Your task to perform on an android device: turn on javascript in the chrome app Image 0: 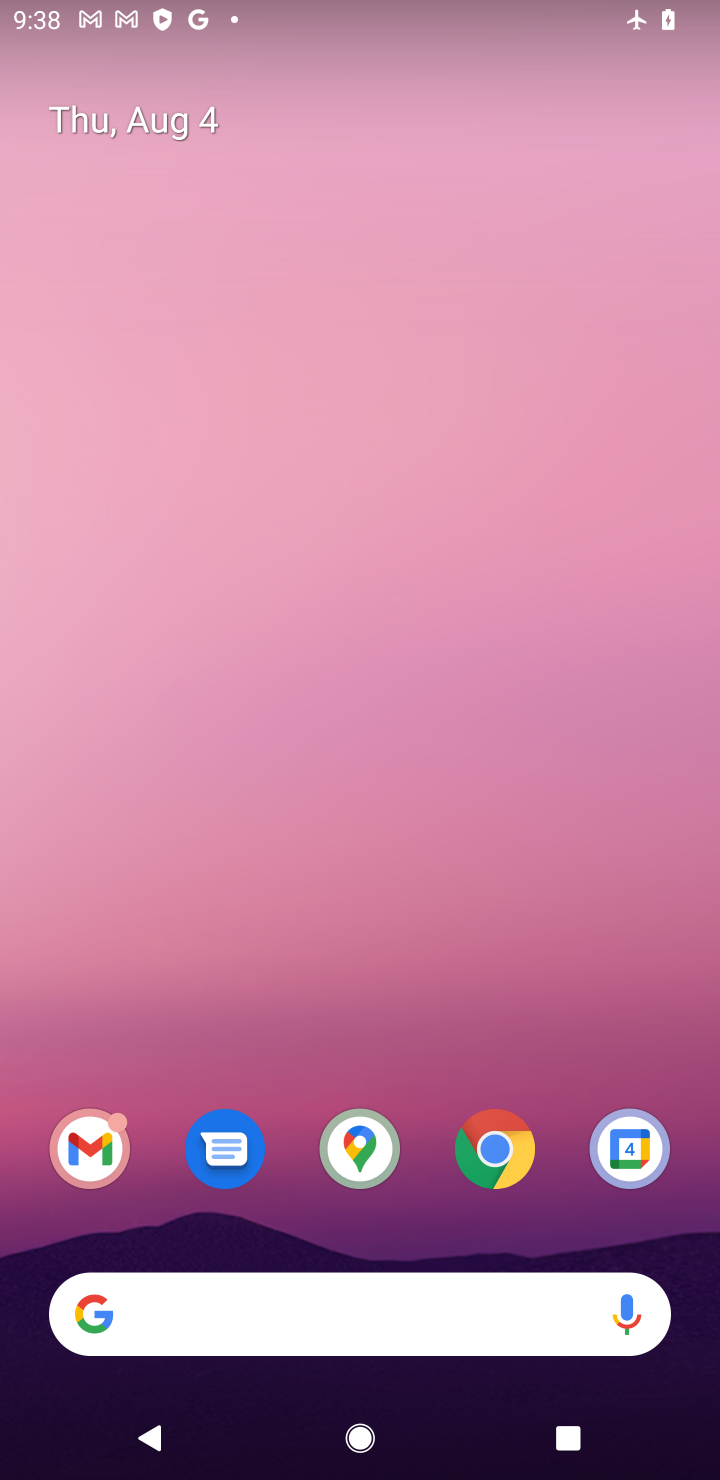
Step 0: click (493, 1146)
Your task to perform on an android device: turn on javascript in the chrome app Image 1: 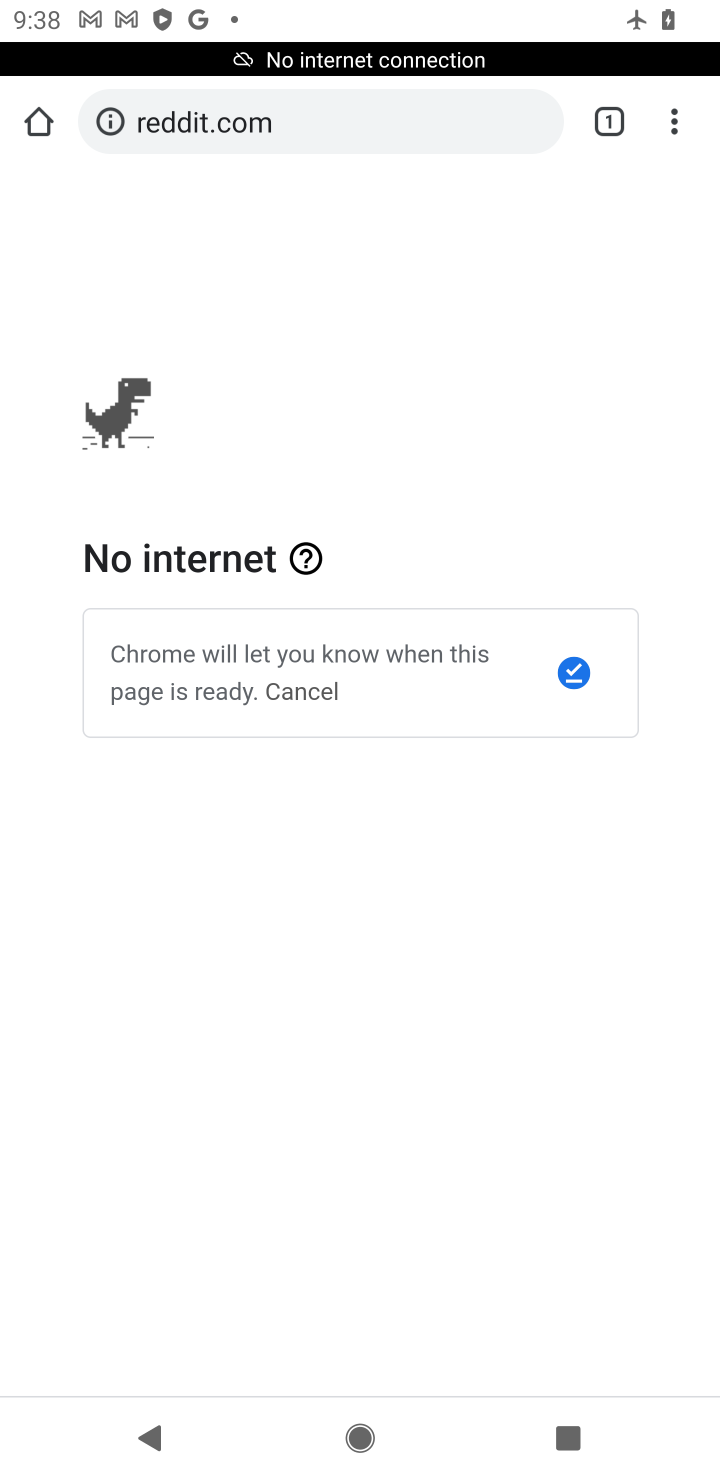
Step 1: click (667, 135)
Your task to perform on an android device: turn on javascript in the chrome app Image 2: 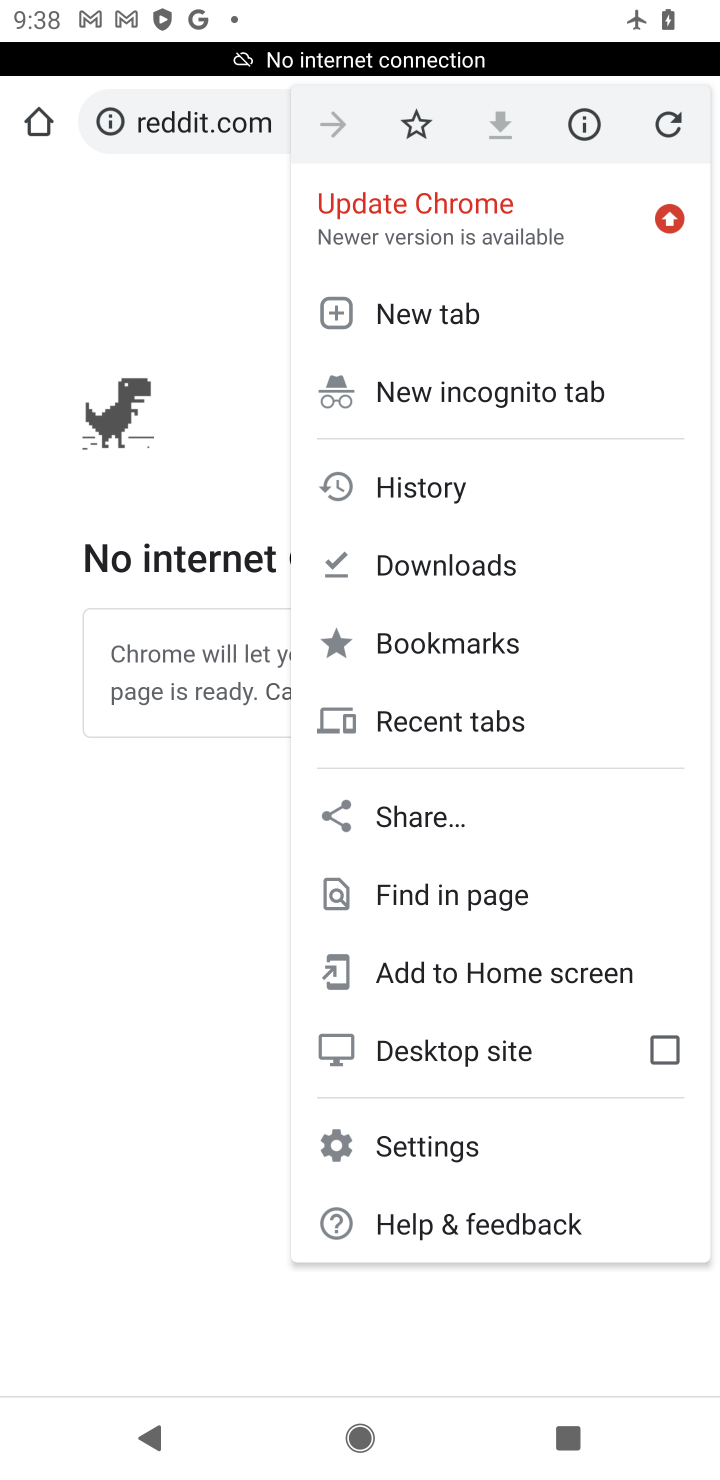
Step 2: click (430, 1136)
Your task to perform on an android device: turn on javascript in the chrome app Image 3: 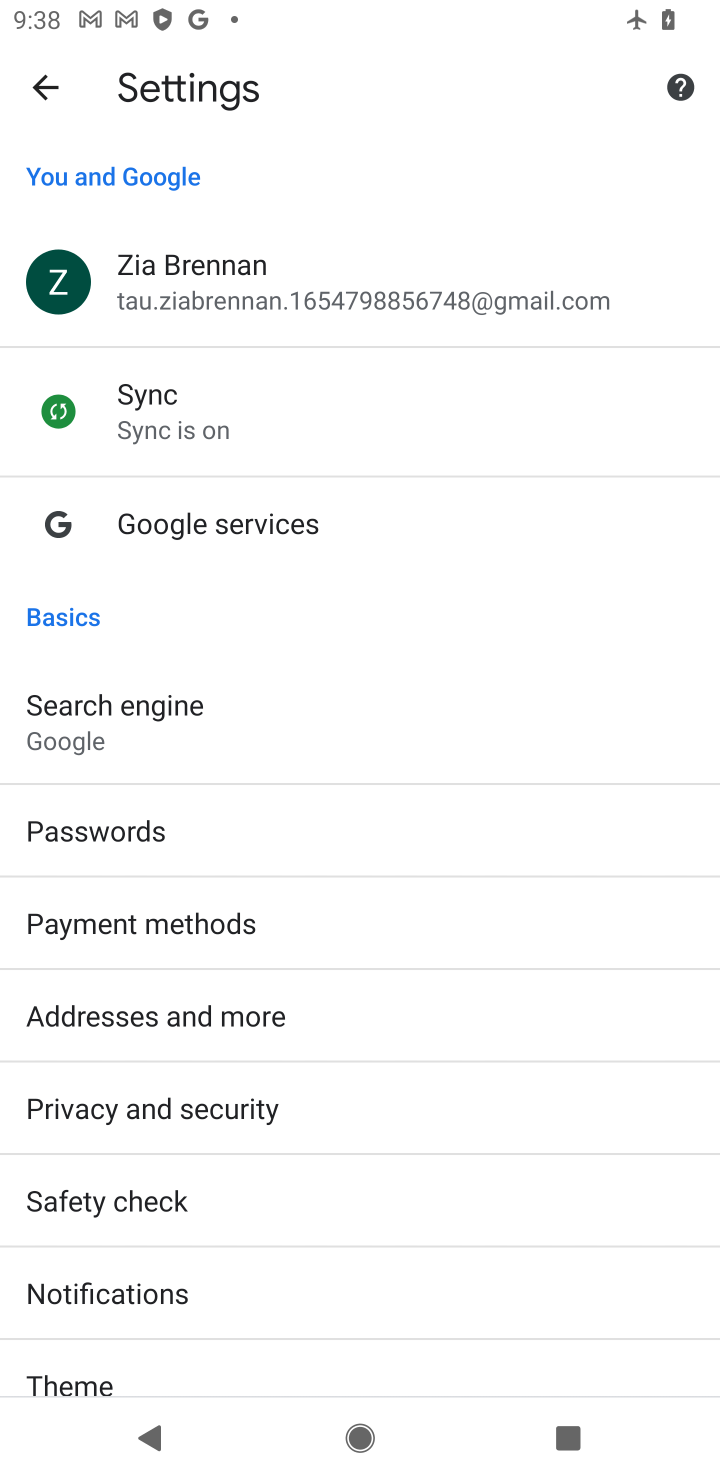
Step 3: drag from (428, 1231) to (395, 622)
Your task to perform on an android device: turn on javascript in the chrome app Image 4: 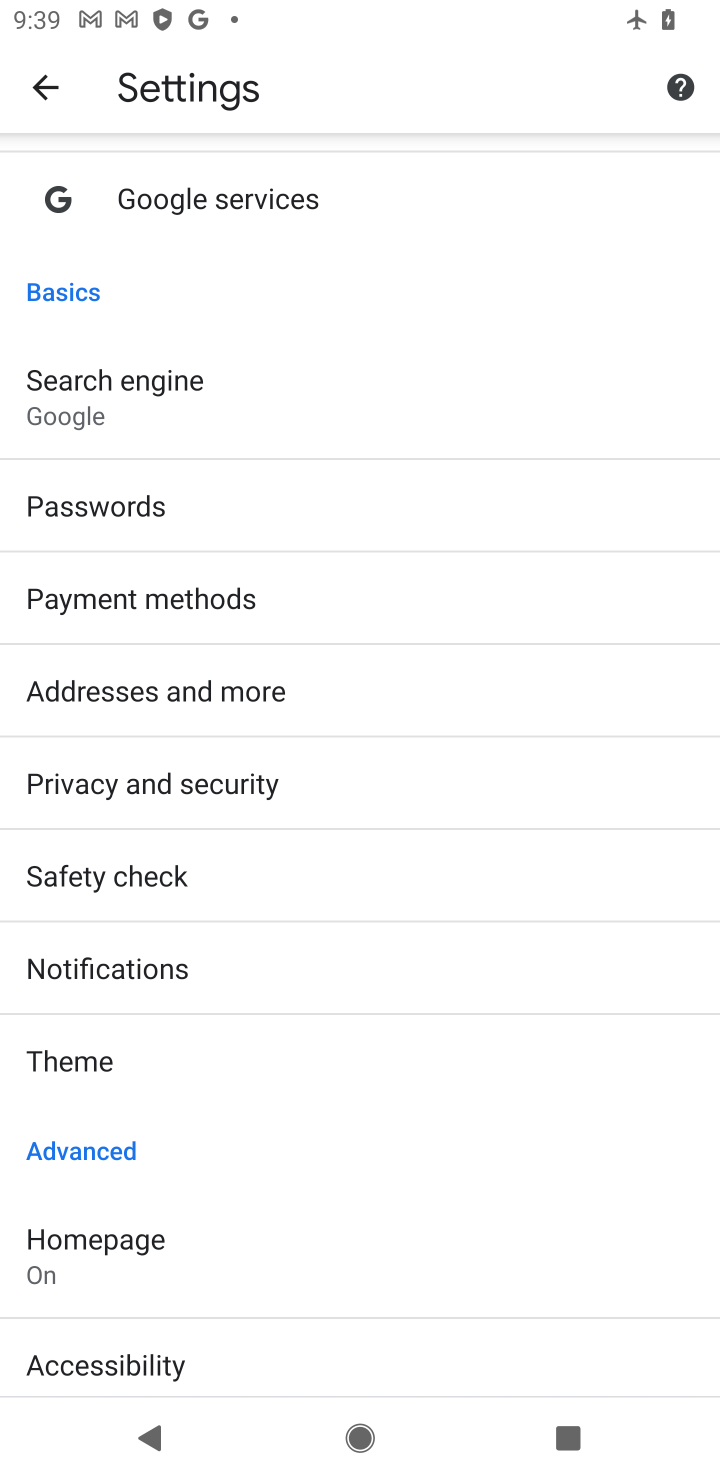
Step 4: drag from (362, 1170) to (385, 538)
Your task to perform on an android device: turn on javascript in the chrome app Image 5: 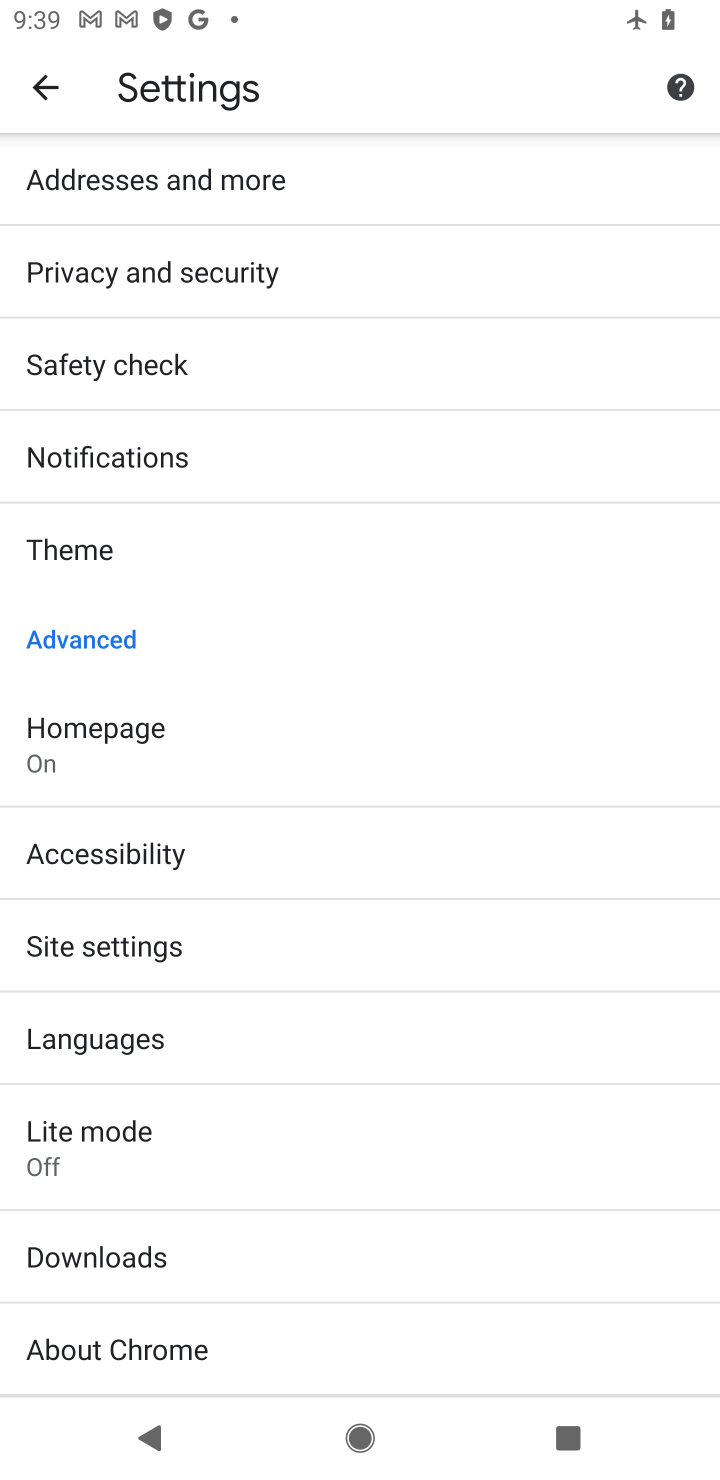
Step 5: click (91, 927)
Your task to perform on an android device: turn on javascript in the chrome app Image 6: 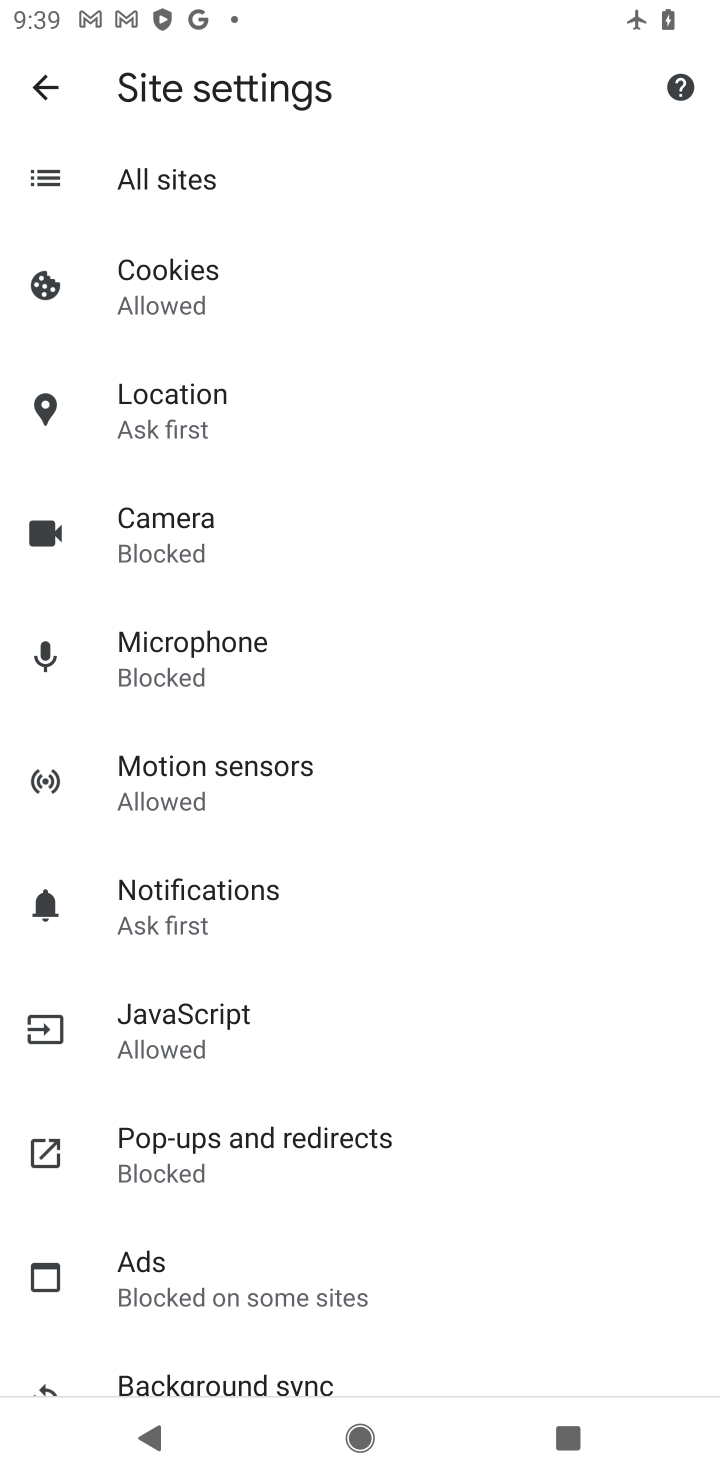
Step 6: click (177, 1020)
Your task to perform on an android device: turn on javascript in the chrome app Image 7: 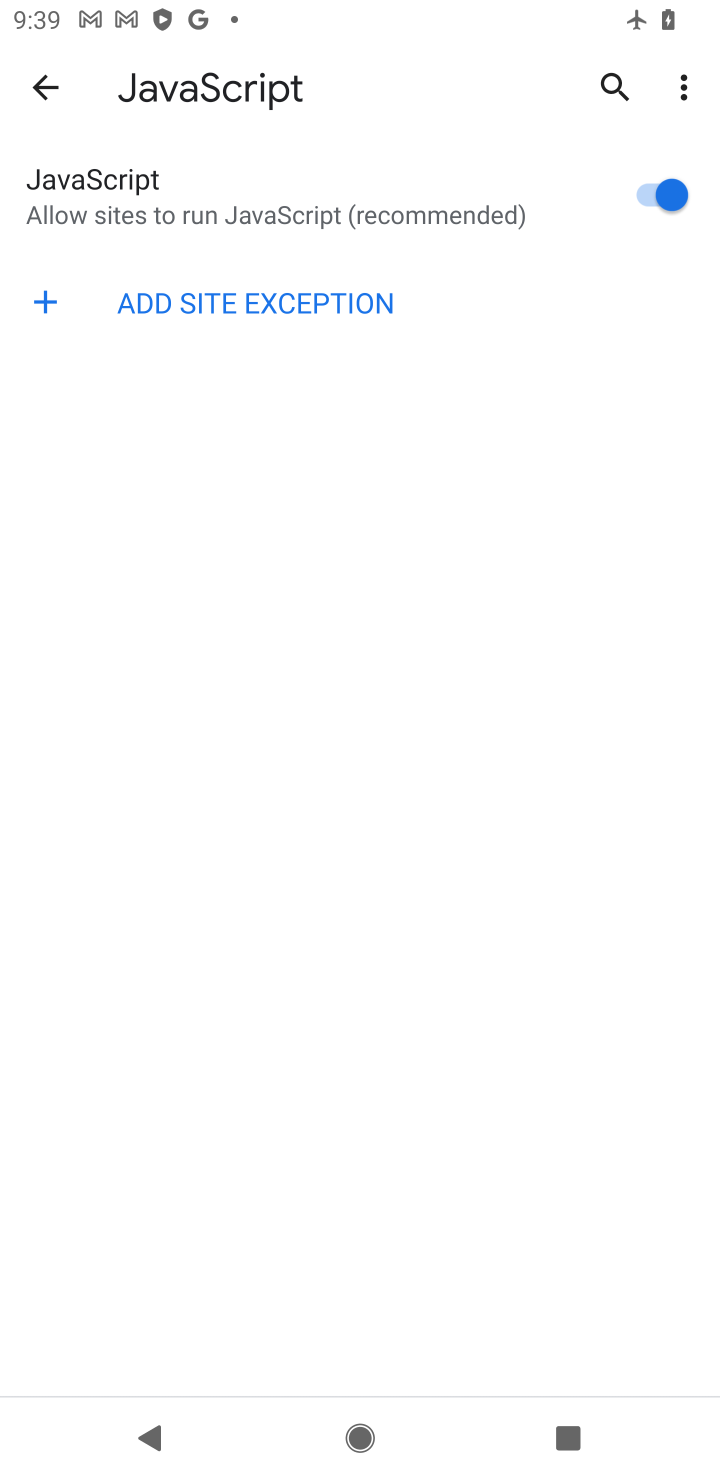
Step 7: task complete